Your task to perform on an android device: find snoozed emails in the gmail app Image 0: 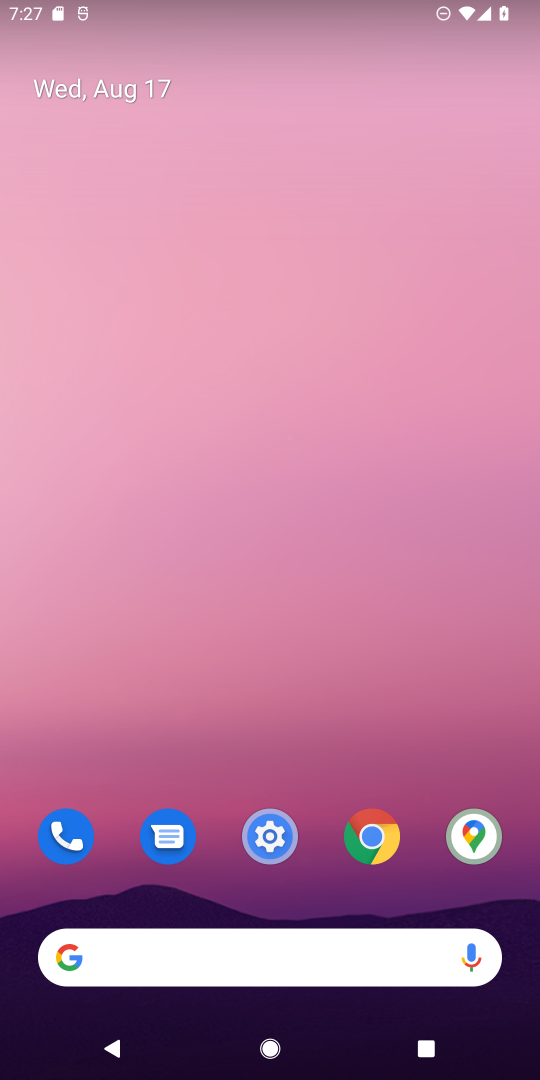
Step 0: drag from (289, 954) to (274, 430)
Your task to perform on an android device: find snoozed emails in the gmail app Image 1: 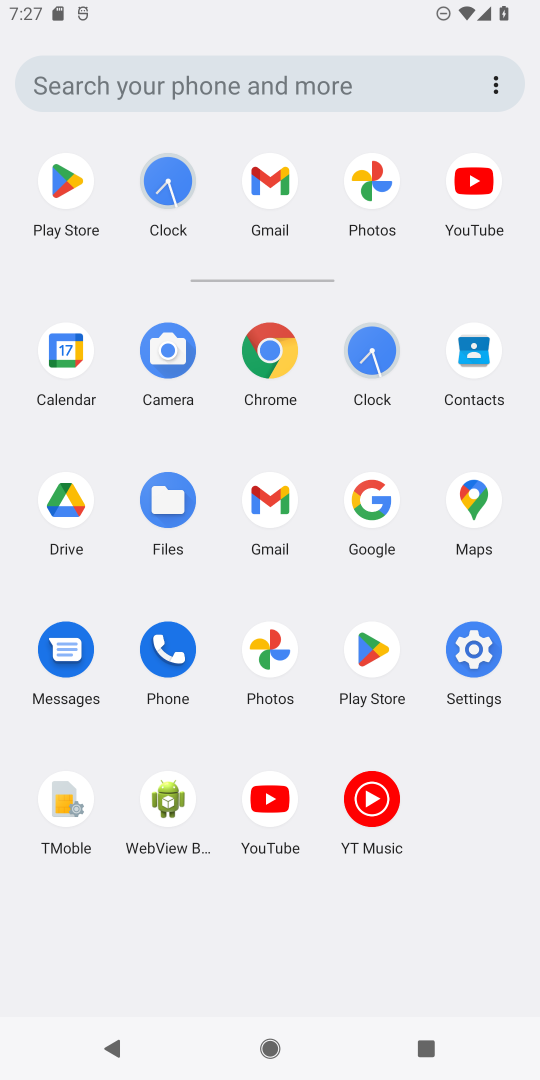
Step 1: click (289, 493)
Your task to perform on an android device: find snoozed emails in the gmail app Image 2: 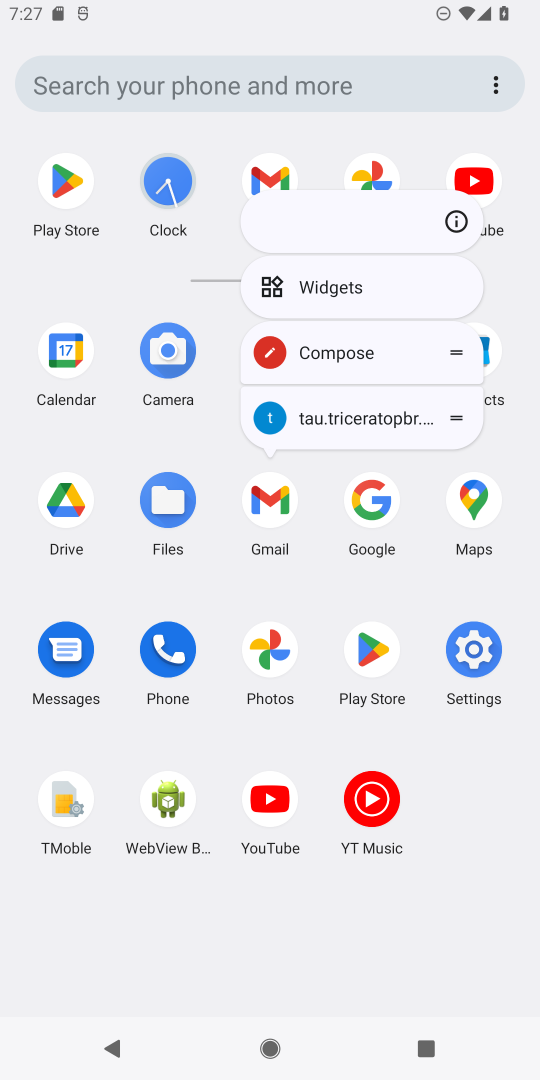
Step 2: click (275, 504)
Your task to perform on an android device: find snoozed emails in the gmail app Image 3: 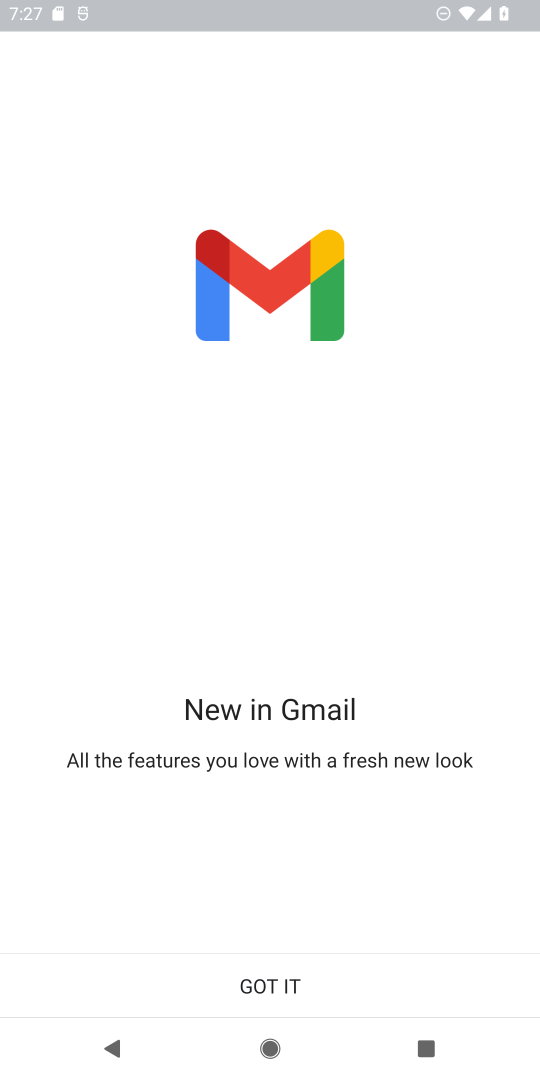
Step 3: click (298, 959)
Your task to perform on an android device: find snoozed emails in the gmail app Image 4: 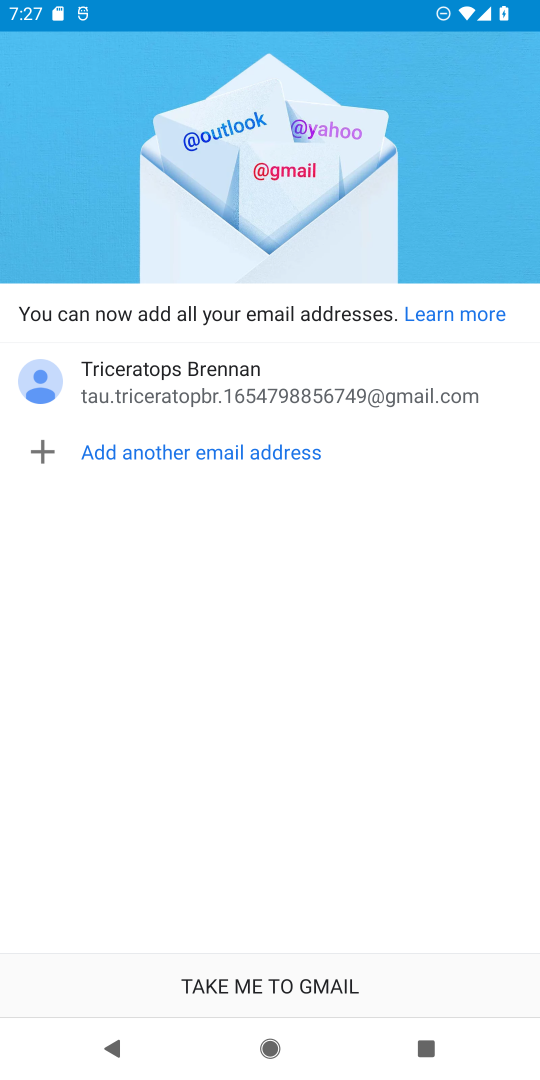
Step 4: click (298, 974)
Your task to perform on an android device: find snoozed emails in the gmail app Image 5: 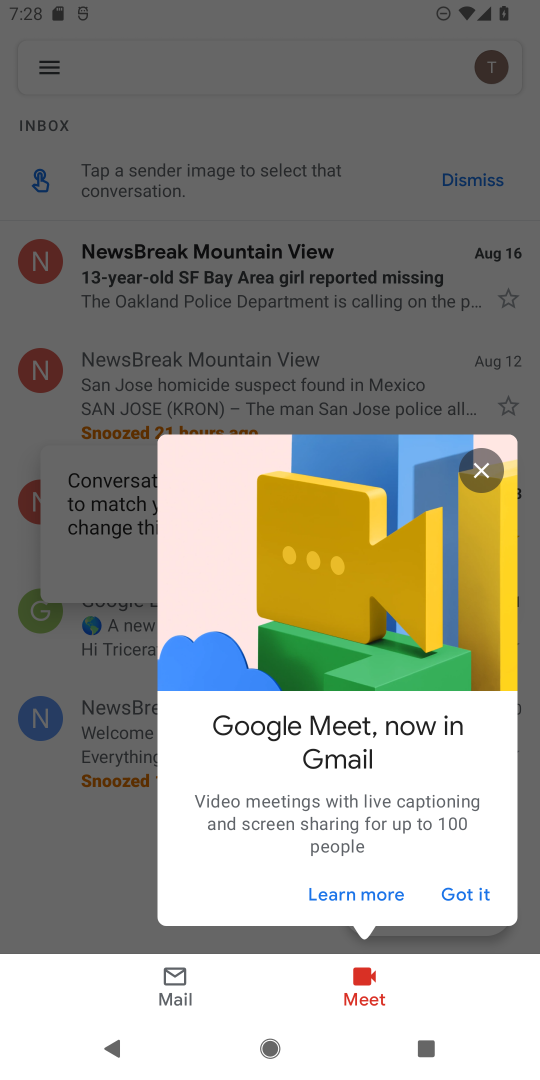
Step 5: click (480, 463)
Your task to perform on an android device: find snoozed emails in the gmail app Image 6: 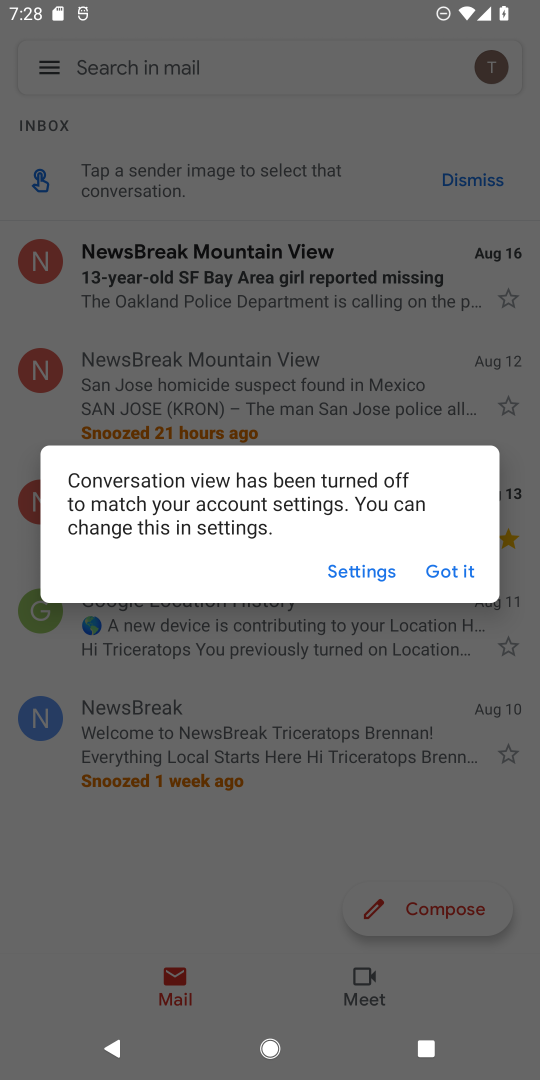
Step 6: click (440, 579)
Your task to perform on an android device: find snoozed emails in the gmail app Image 7: 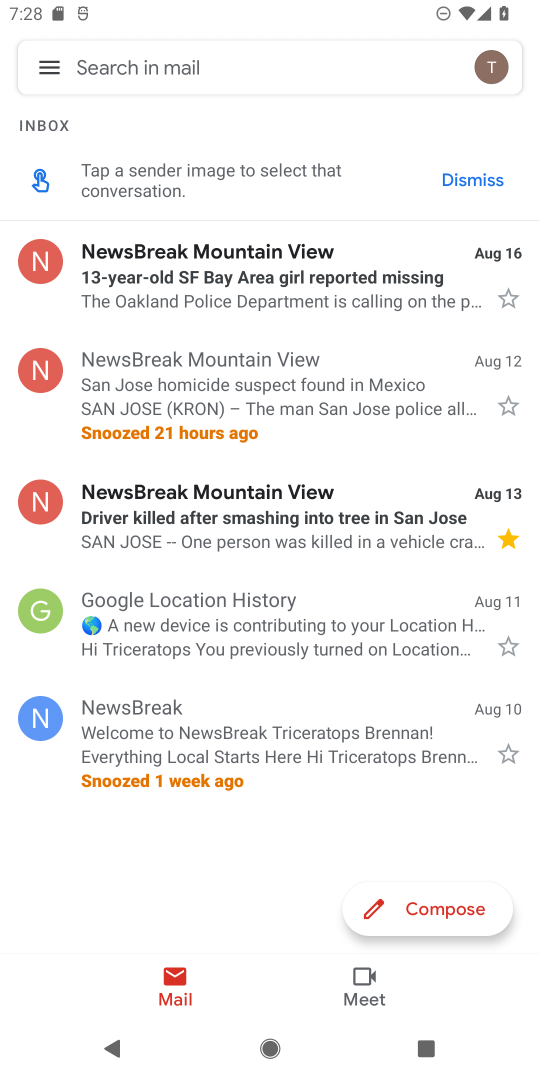
Step 7: click (48, 59)
Your task to perform on an android device: find snoozed emails in the gmail app Image 8: 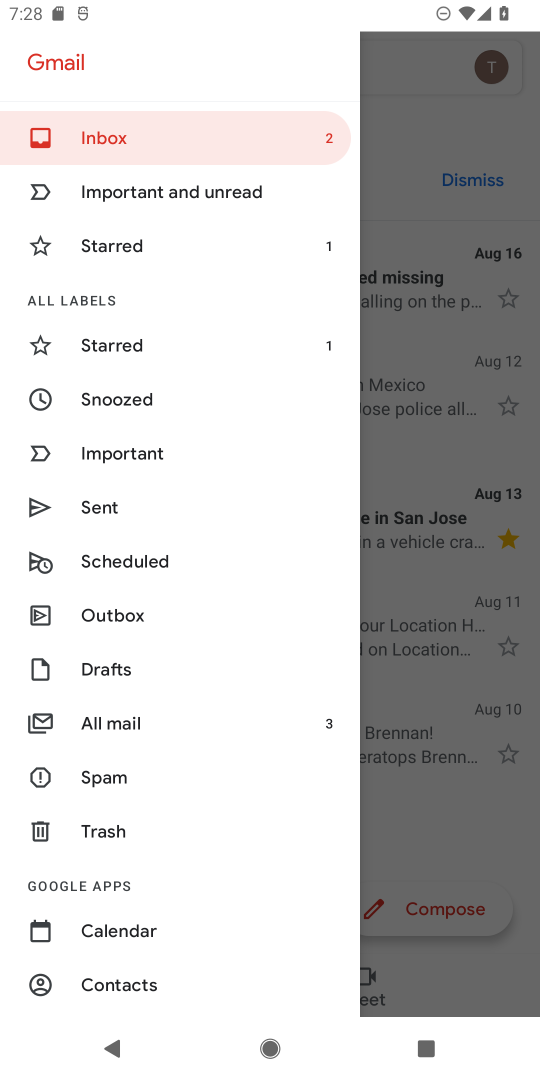
Step 8: click (134, 402)
Your task to perform on an android device: find snoozed emails in the gmail app Image 9: 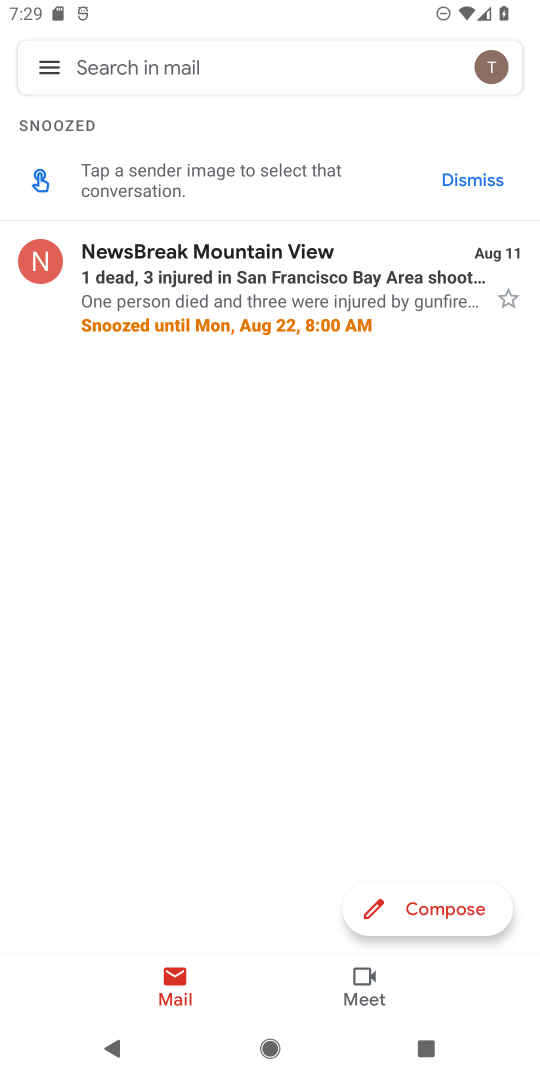
Step 9: task complete